Your task to perform on an android device: Open the Play Movies app and select the watchlist tab. Image 0: 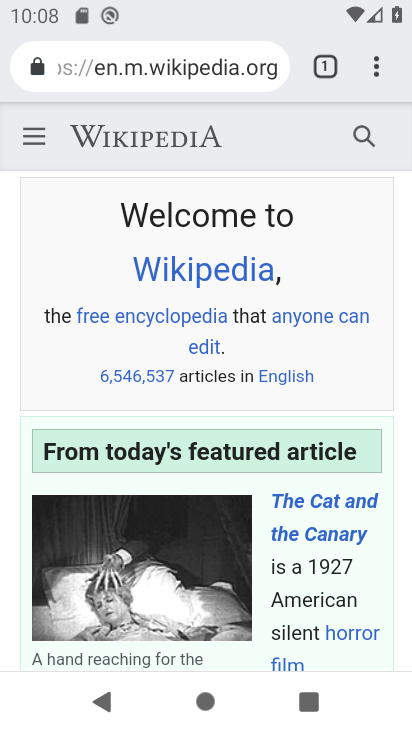
Step 0: press home button
Your task to perform on an android device: Open the Play Movies app and select the watchlist tab. Image 1: 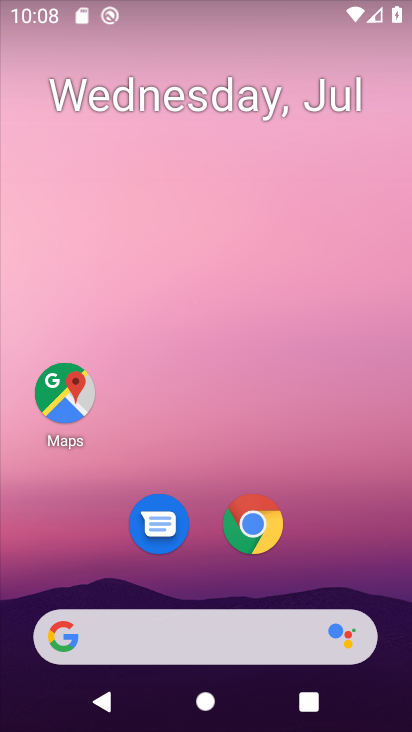
Step 1: drag from (334, 517) to (311, 49)
Your task to perform on an android device: Open the Play Movies app and select the watchlist tab. Image 2: 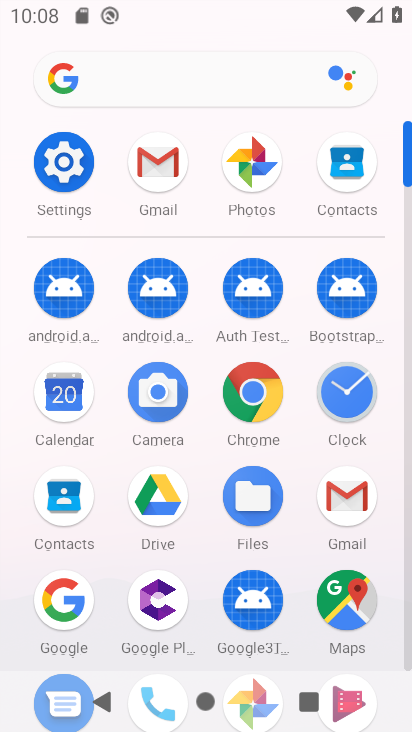
Step 2: drag from (305, 525) to (328, 249)
Your task to perform on an android device: Open the Play Movies app and select the watchlist tab. Image 3: 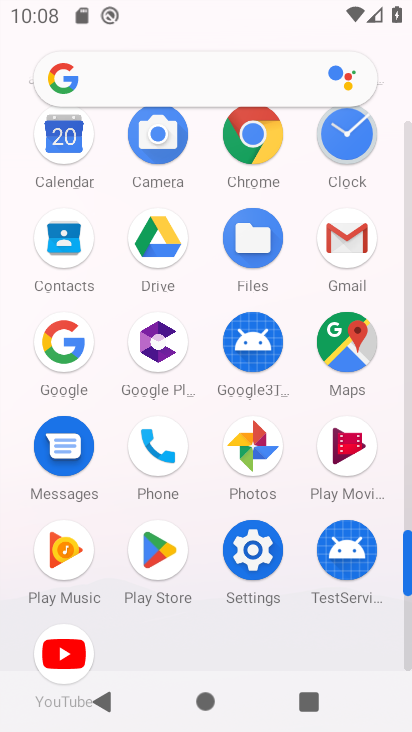
Step 3: click (340, 446)
Your task to perform on an android device: Open the Play Movies app and select the watchlist tab. Image 4: 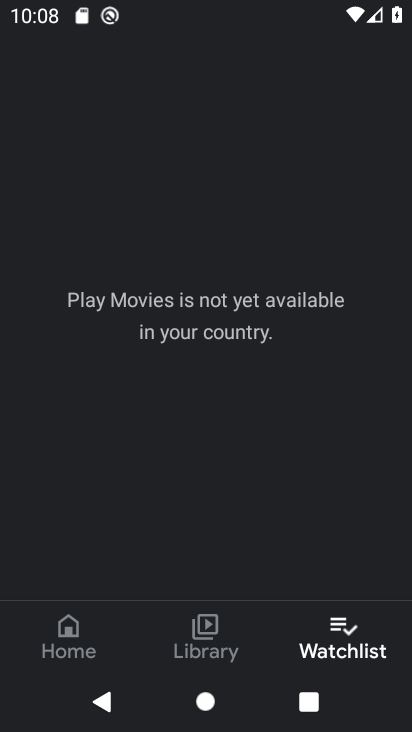
Step 4: click (349, 649)
Your task to perform on an android device: Open the Play Movies app and select the watchlist tab. Image 5: 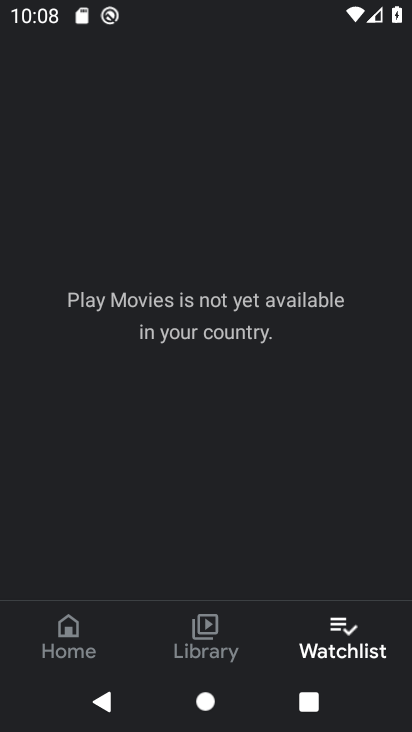
Step 5: task complete